Your task to perform on an android device: create a new album in the google photos Image 0: 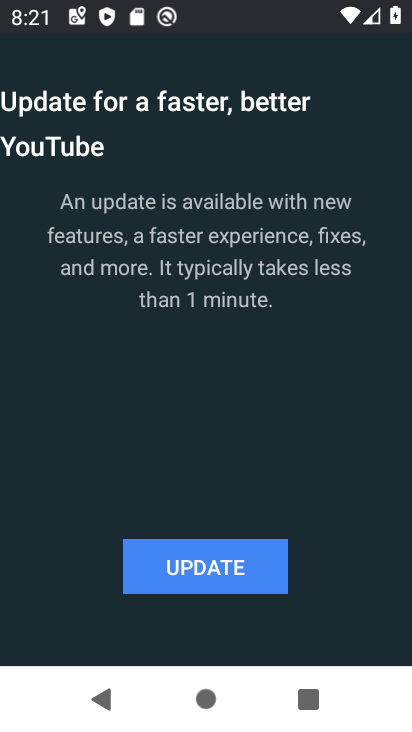
Step 0: press home button
Your task to perform on an android device: create a new album in the google photos Image 1: 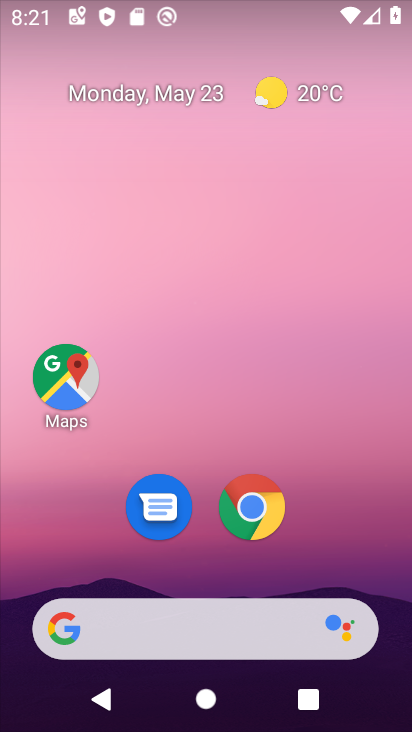
Step 1: drag from (361, 587) to (342, 25)
Your task to perform on an android device: create a new album in the google photos Image 2: 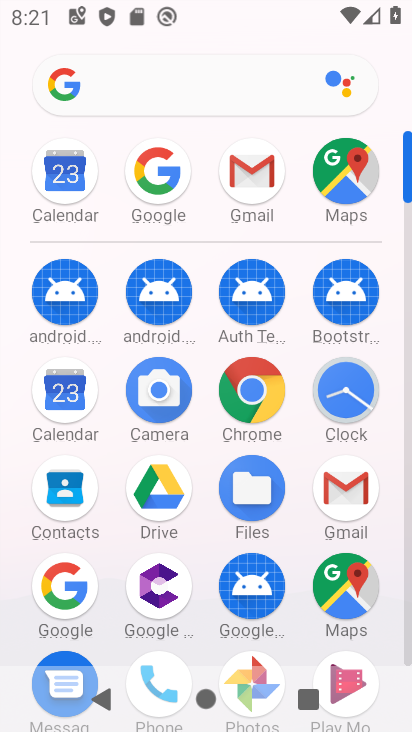
Step 2: click (409, 501)
Your task to perform on an android device: create a new album in the google photos Image 3: 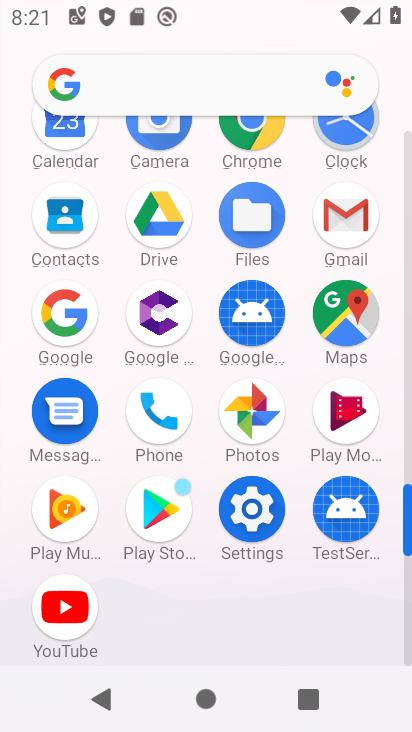
Step 3: click (242, 416)
Your task to perform on an android device: create a new album in the google photos Image 4: 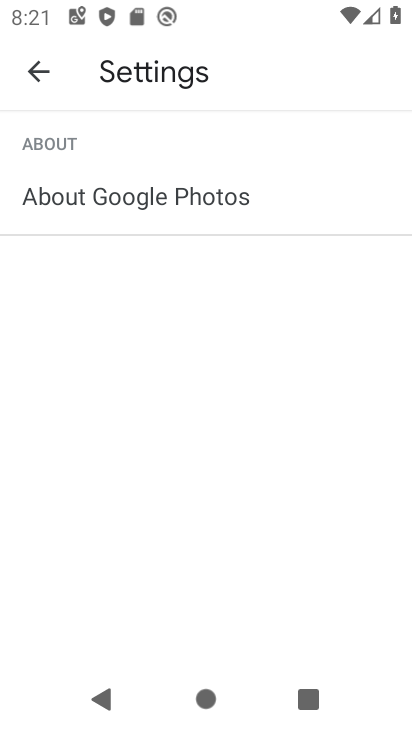
Step 4: click (39, 81)
Your task to perform on an android device: create a new album in the google photos Image 5: 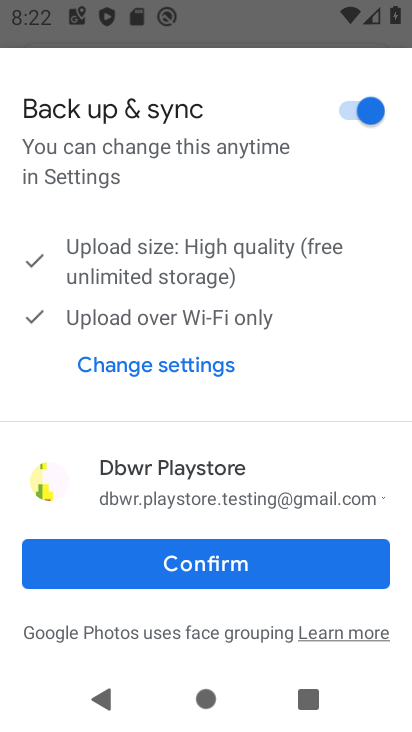
Step 5: click (209, 555)
Your task to perform on an android device: create a new album in the google photos Image 6: 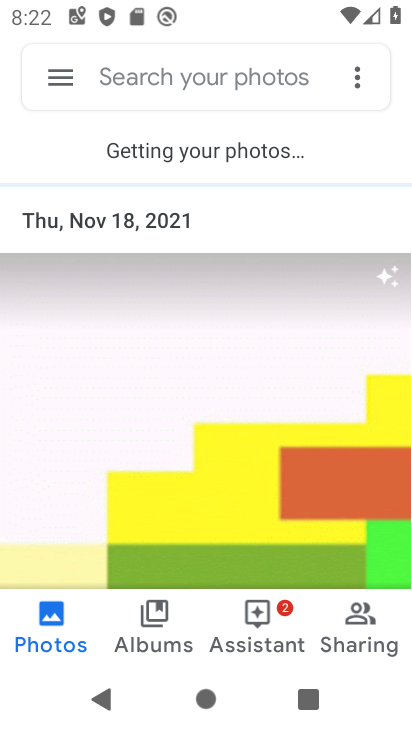
Step 6: click (60, 639)
Your task to perform on an android device: create a new album in the google photos Image 7: 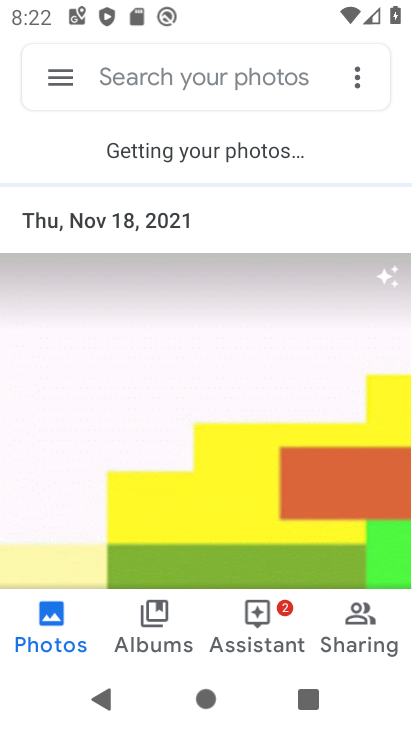
Step 7: drag from (172, 517) to (161, 226)
Your task to perform on an android device: create a new album in the google photos Image 8: 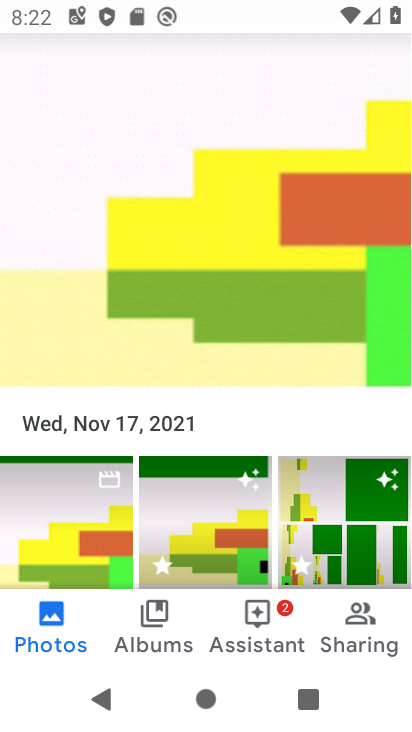
Step 8: drag from (170, 430) to (177, 0)
Your task to perform on an android device: create a new album in the google photos Image 9: 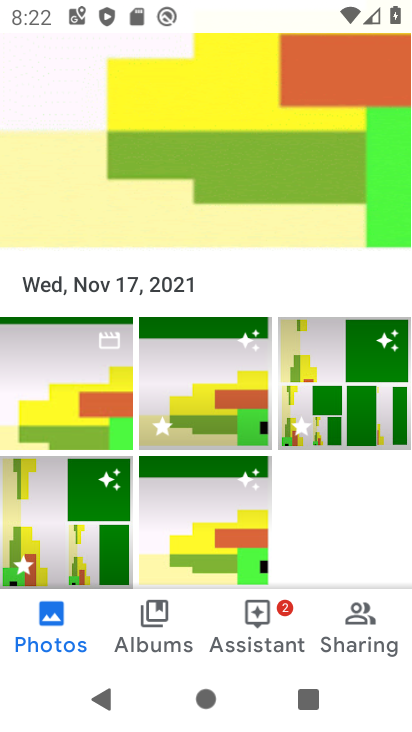
Step 9: click (222, 363)
Your task to perform on an android device: create a new album in the google photos Image 10: 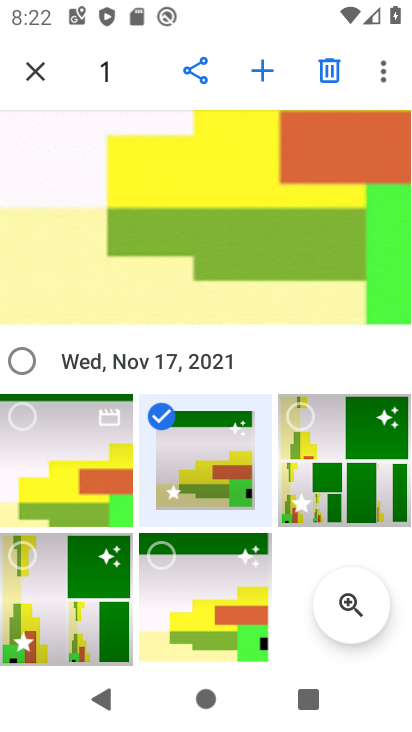
Step 10: click (315, 431)
Your task to perform on an android device: create a new album in the google photos Image 11: 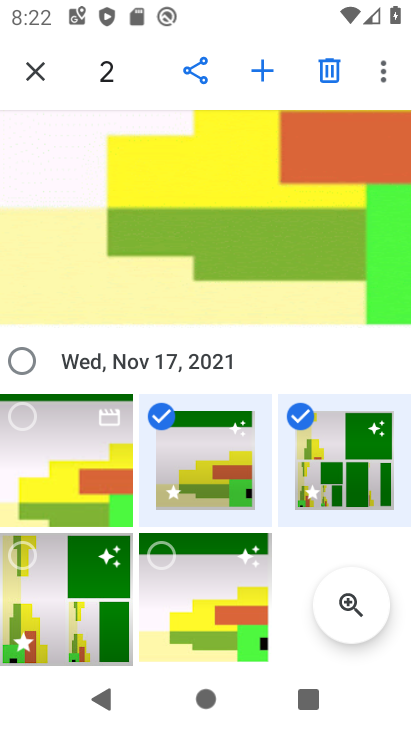
Step 11: click (259, 75)
Your task to perform on an android device: create a new album in the google photos Image 12: 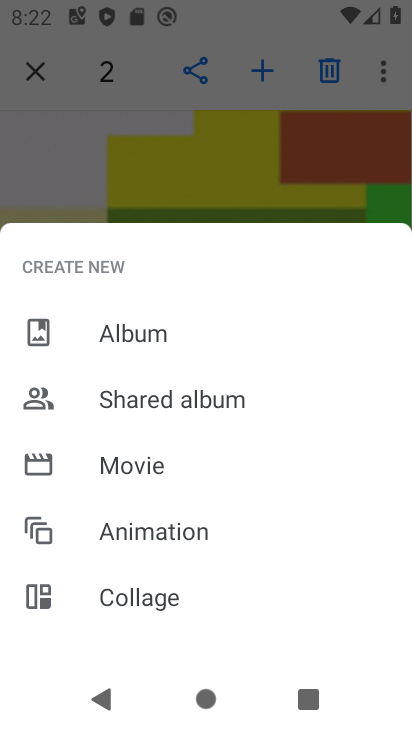
Step 12: click (128, 344)
Your task to perform on an android device: create a new album in the google photos Image 13: 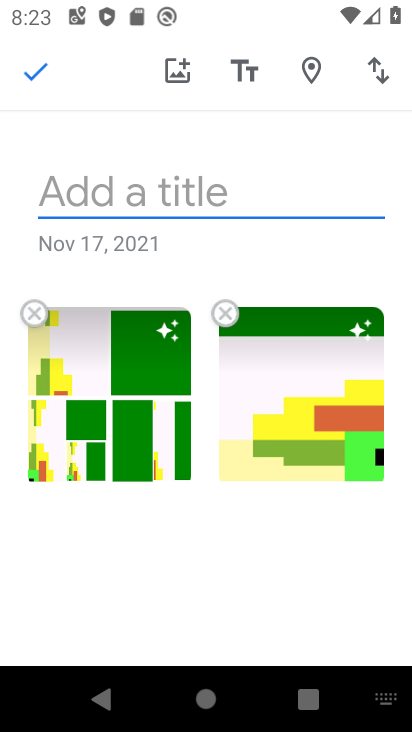
Step 13: click (96, 206)
Your task to perform on an android device: create a new album in the google photos Image 14: 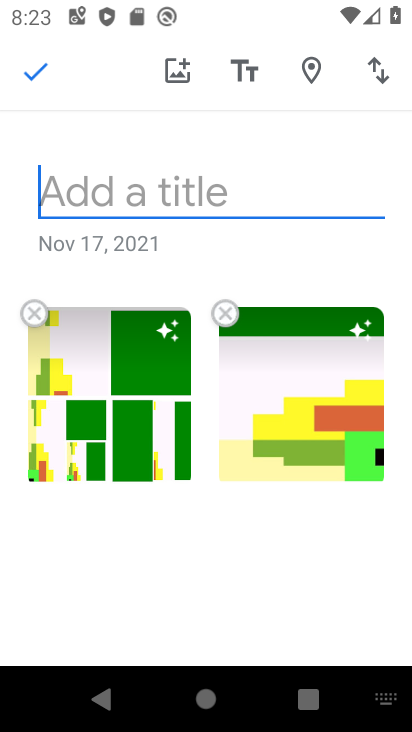
Step 14: type "new  1"
Your task to perform on an android device: create a new album in the google photos Image 15: 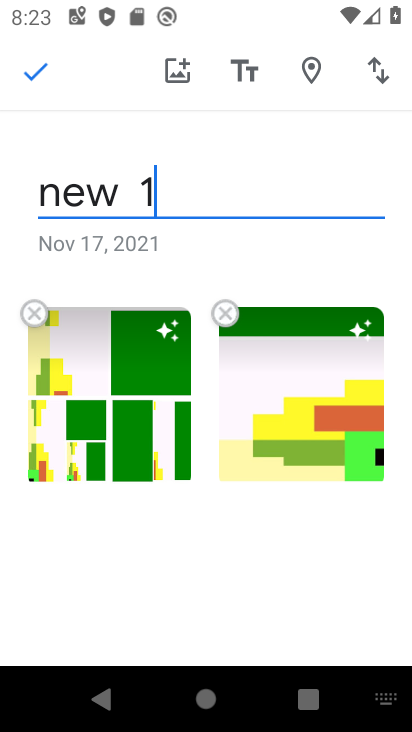
Step 15: click (25, 79)
Your task to perform on an android device: create a new album in the google photos Image 16: 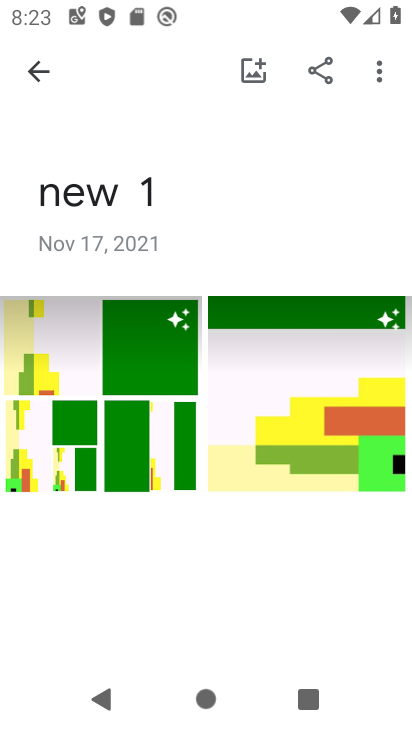
Step 16: task complete